Your task to perform on an android device: What is the news today? Image 0: 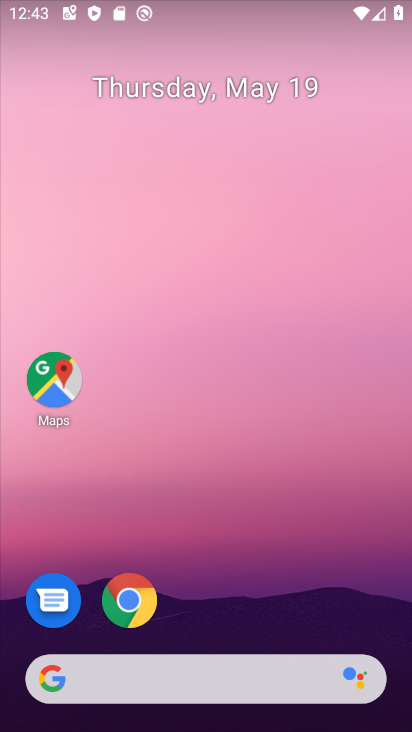
Step 0: click (370, 580)
Your task to perform on an android device: What is the news today? Image 1: 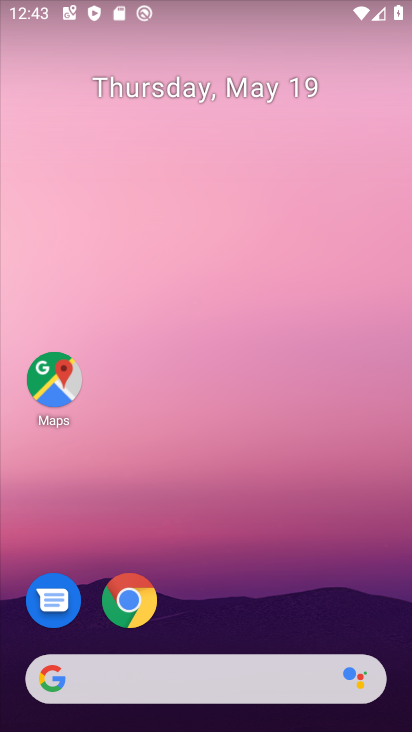
Step 1: drag from (331, 610) to (187, 43)
Your task to perform on an android device: What is the news today? Image 2: 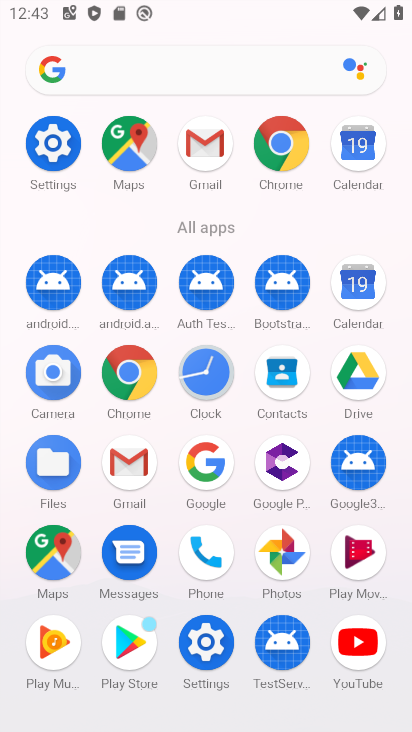
Step 2: click (286, 132)
Your task to perform on an android device: What is the news today? Image 3: 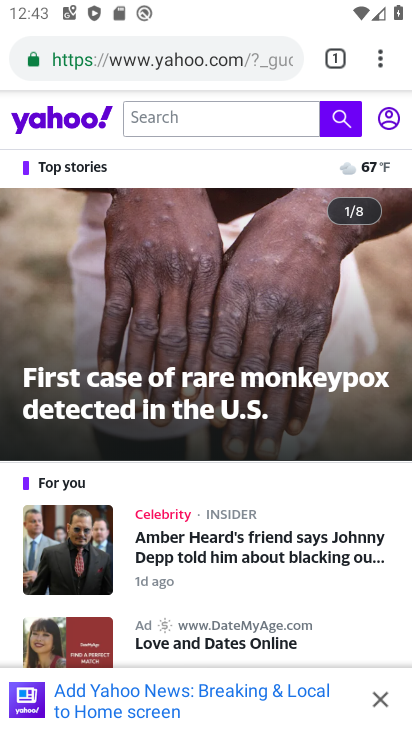
Step 3: press home button
Your task to perform on an android device: What is the news today? Image 4: 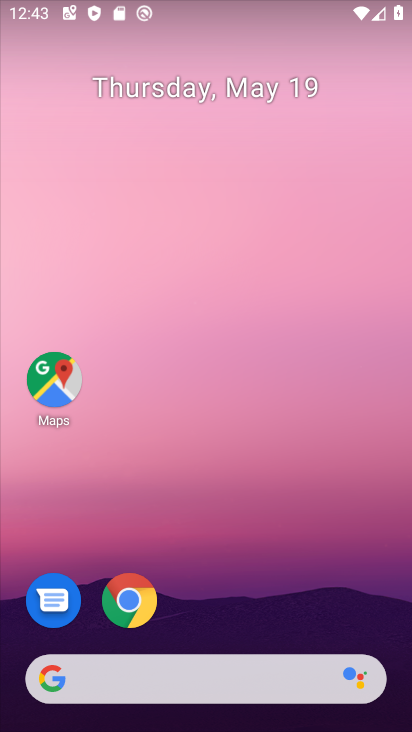
Step 4: drag from (336, 623) to (273, 107)
Your task to perform on an android device: What is the news today? Image 5: 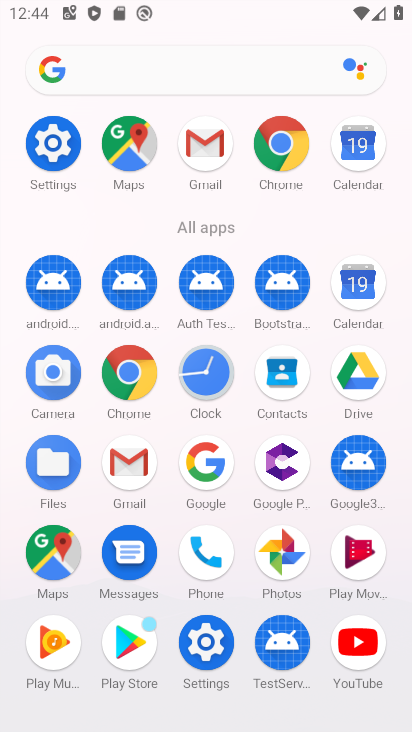
Step 5: click (187, 68)
Your task to perform on an android device: What is the news today? Image 6: 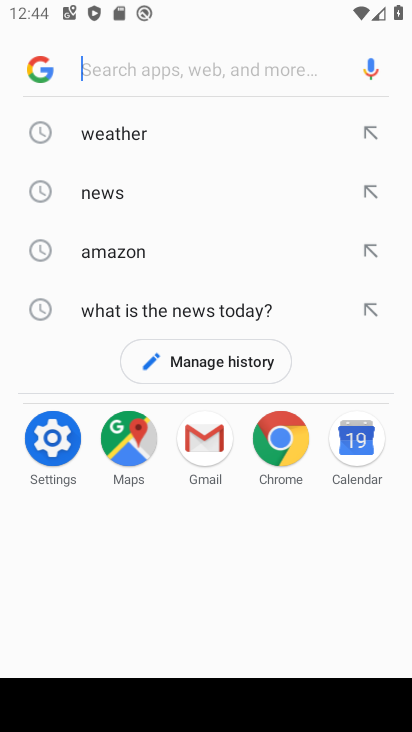
Step 6: click (201, 208)
Your task to perform on an android device: What is the news today? Image 7: 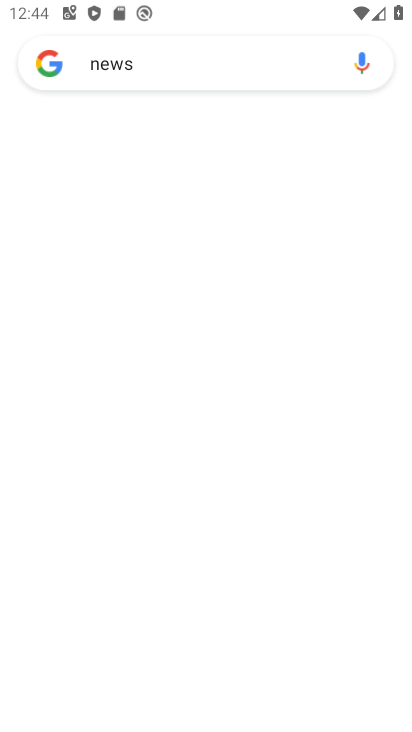
Step 7: task complete